Your task to perform on an android device: Open Maps and search for coffee Image 0: 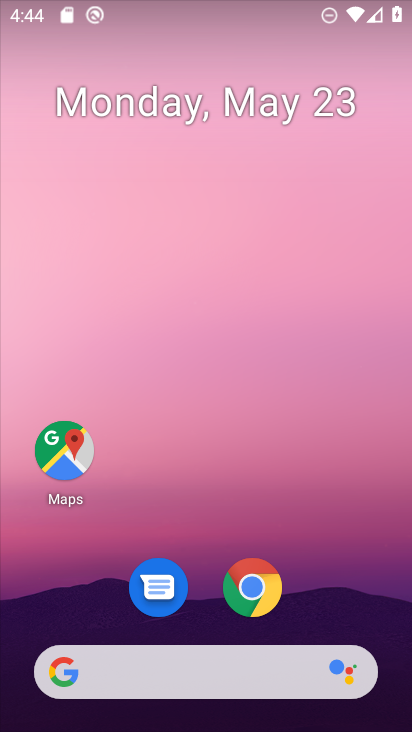
Step 0: drag from (212, 620) to (161, 9)
Your task to perform on an android device: Open Maps and search for coffee Image 1: 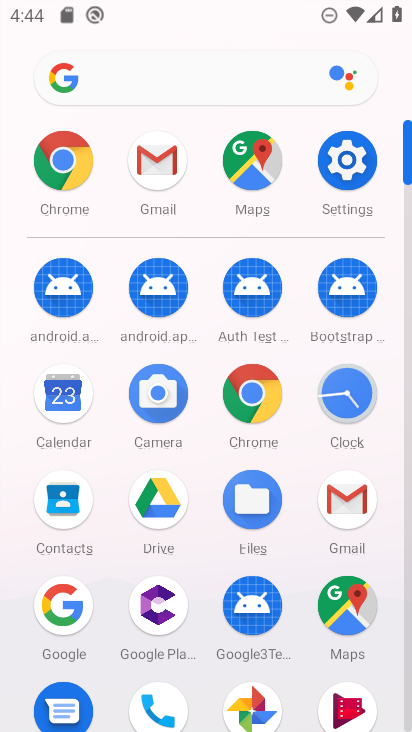
Step 1: click (345, 606)
Your task to perform on an android device: Open Maps and search for coffee Image 2: 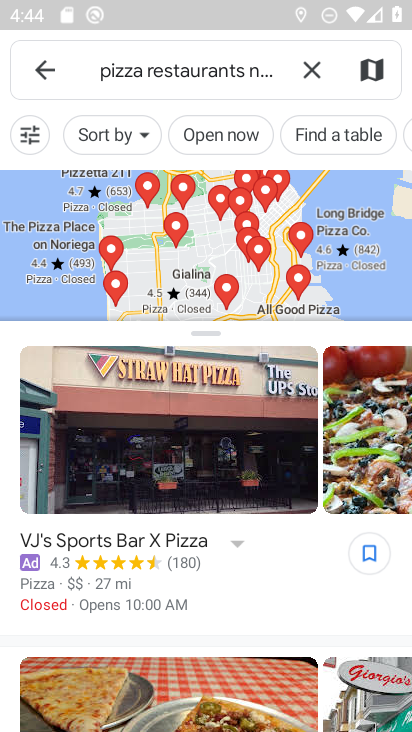
Step 2: click (47, 76)
Your task to perform on an android device: Open Maps and search for coffee Image 3: 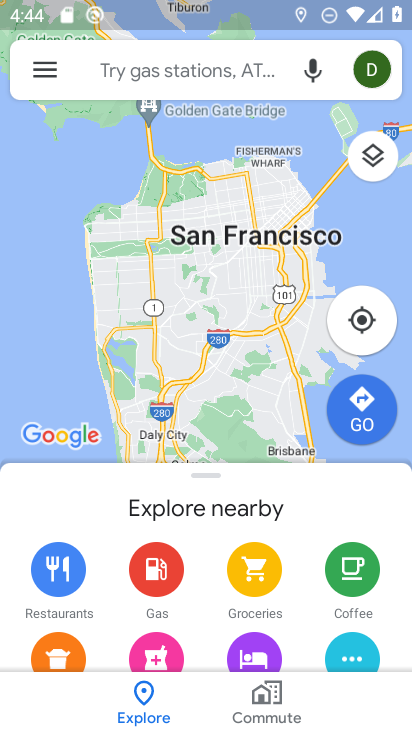
Step 3: click (51, 72)
Your task to perform on an android device: Open Maps and search for coffee Image 4: 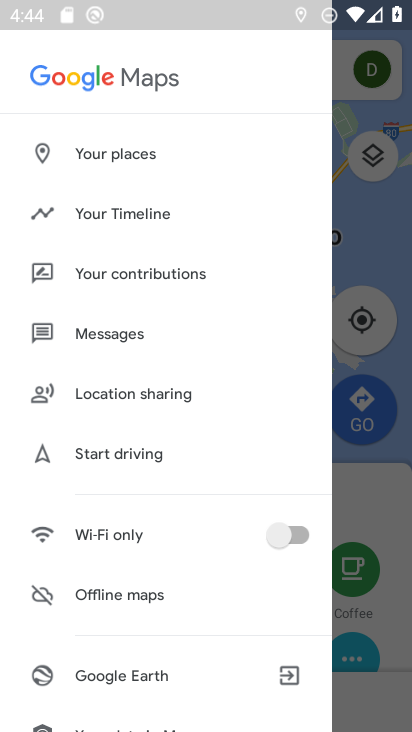
Step 4: click (367, 230)
Your task to perform on an android device: Open Maps and search for coffee Image 5: 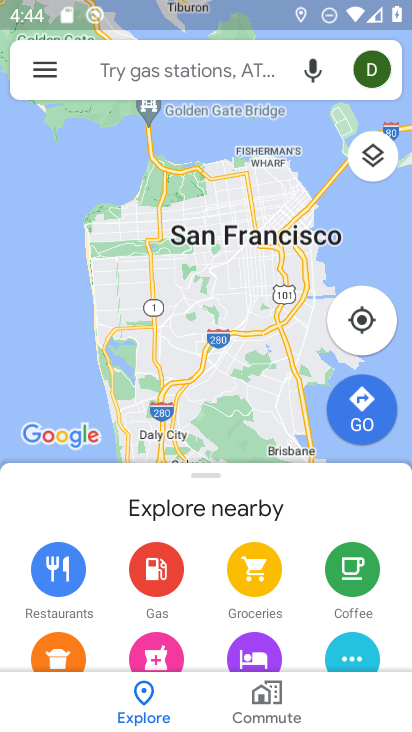
Step 5: click (167, 63)
Your task to perform on an android device: Open Maps and search for coffee Image 6: 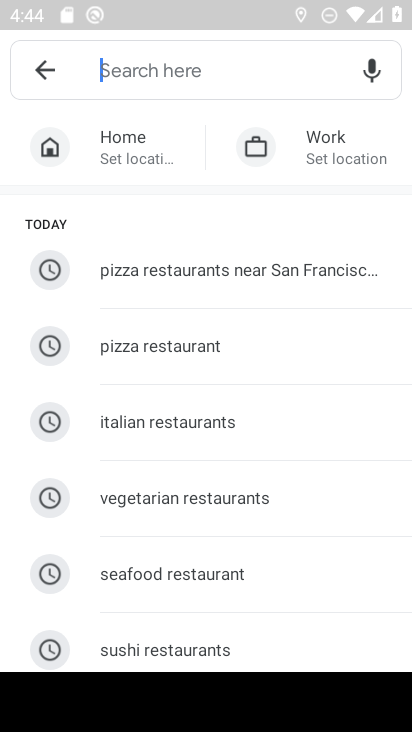
Step 6: type "coffee "
Your task to perform on an android device: Open Maps and search for coffee Image 7: 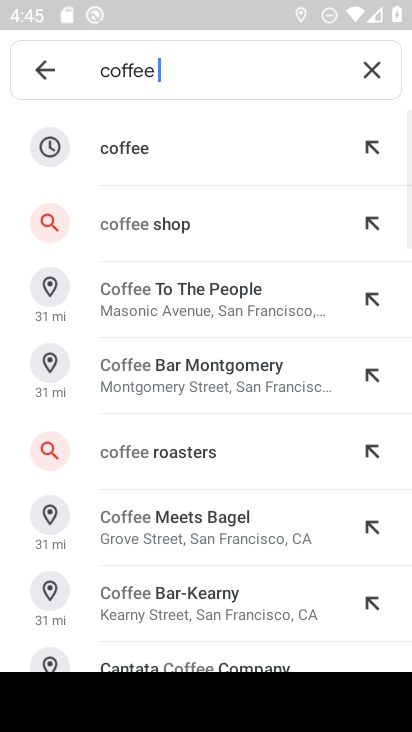
Step 7: click (154, 152)
Your task to perform on an android device: Open Maps and search for coffee Image 8: 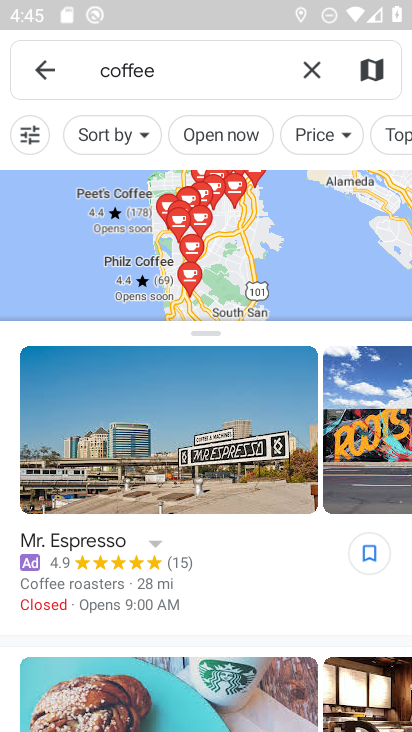
Step 8: task complete